Your task to perform on an android device: change your default location settings in chrome Image 0: 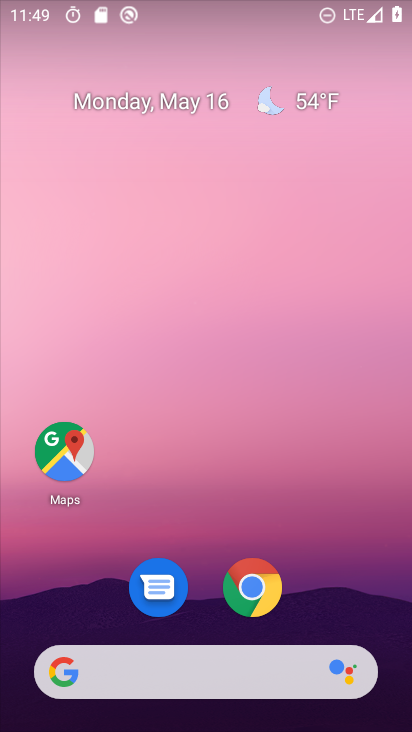
Step 0: drag from (208, 643) to (226, 163)
Your task to perform on an android device: change your default location settings in chrome Image 1: 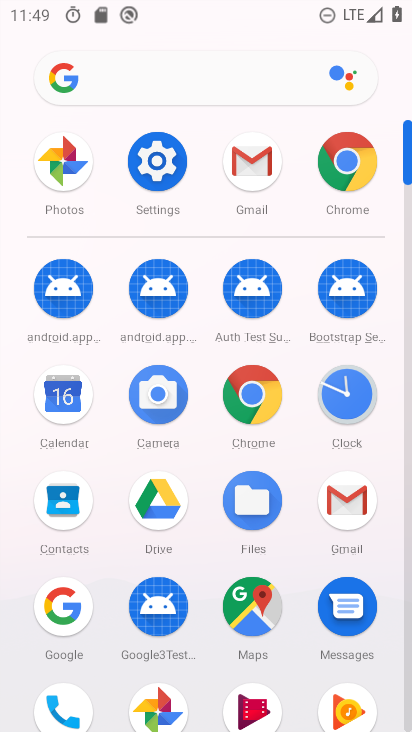
Step 1: drag from (195, 665) to (208, 221)
Your task to perform on an android device: change your default location settings in chrome Image 2: 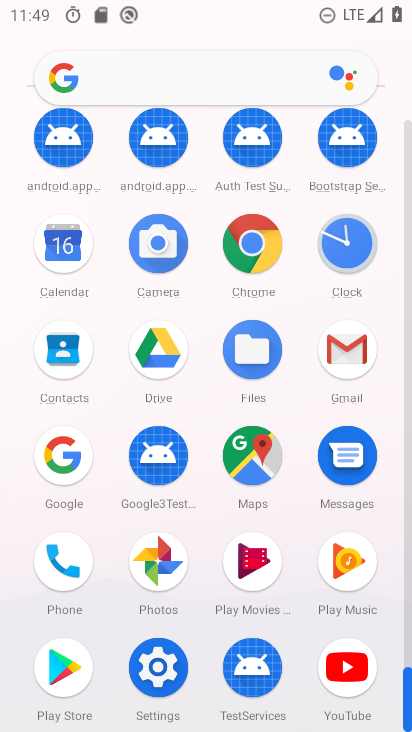
Step 2: drag from (210, 645) to (206, 212)
Your task to perform on an android device: change your default location settings in chrome Image 3: 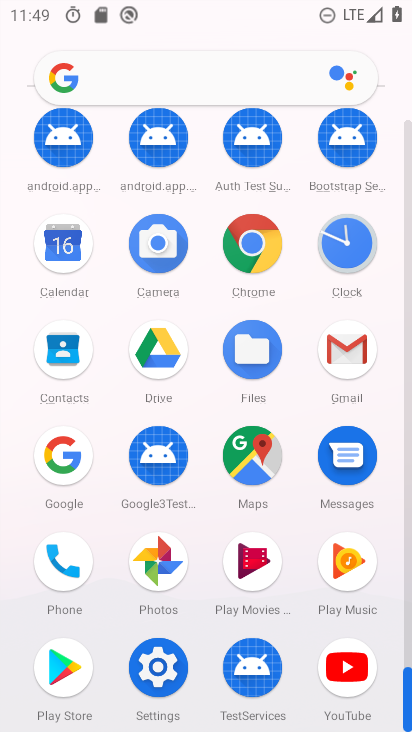
Step 3: click (251, 236)
Your task to perform on an android device: change your default location settings in chrome Image 4: 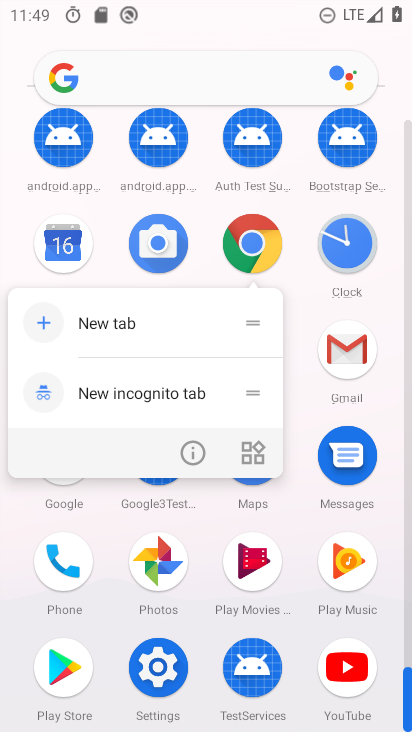
Step 4: click (194, 445)
Your task to perform on an android device: change your default location settings in chrome Image 5: 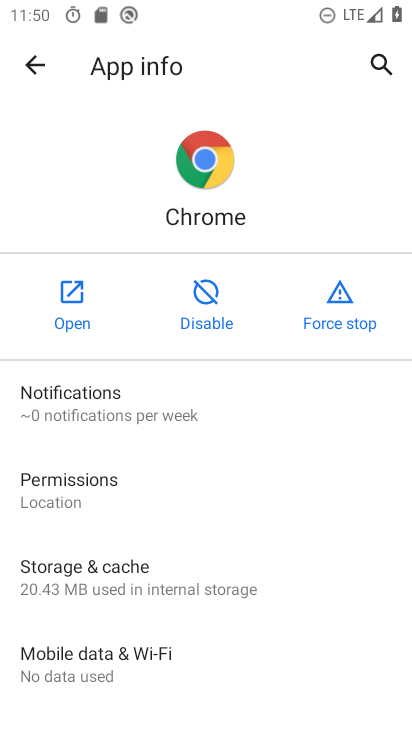
Step 5: click (71, 299)
Your task to perform on an android device: change your default location settings in chrome Image 6: 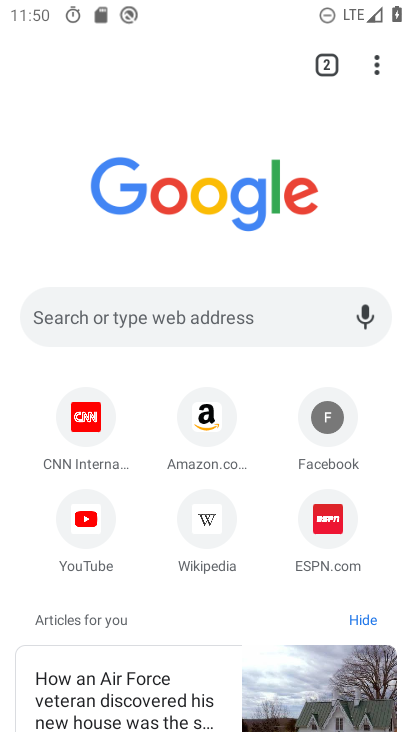
Step 6: click (372, 67)
Your task to perform on an android device: change your default location settings in chrome Image 7: 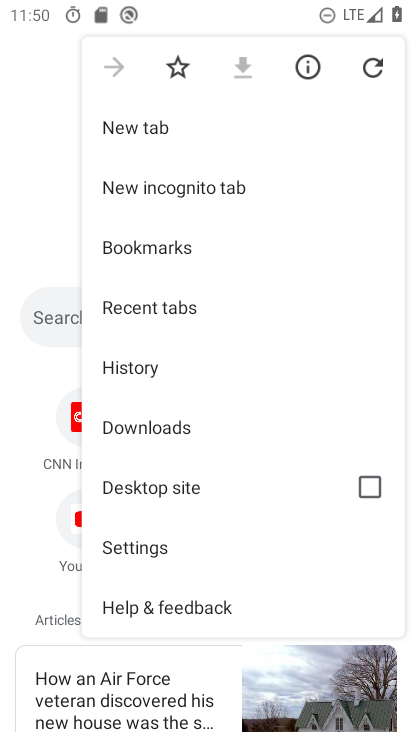
Step 7: click (195, 538)
Your task to perform on an android device: change your default location settings in chrome Image 8: 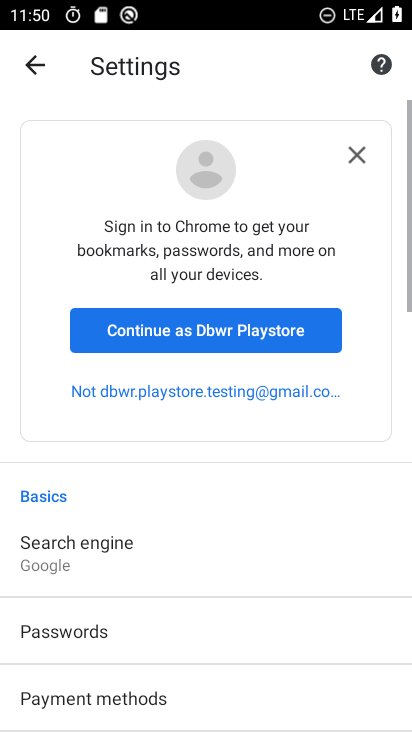
Step 8: drag from (181, 525) to (236, 112)
Your task to perform on an android device: change your default location settings in chrome Image 9: 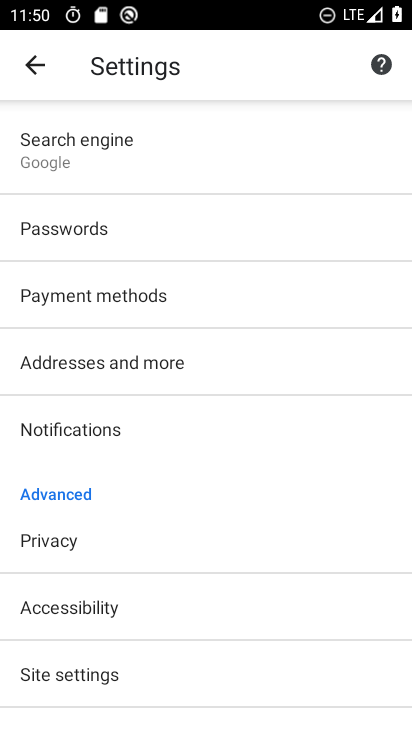
Step 9: drag from (178, 604) to (195, 234)
Your task to perform on an android device: change your default location settings in chrome Image 10: 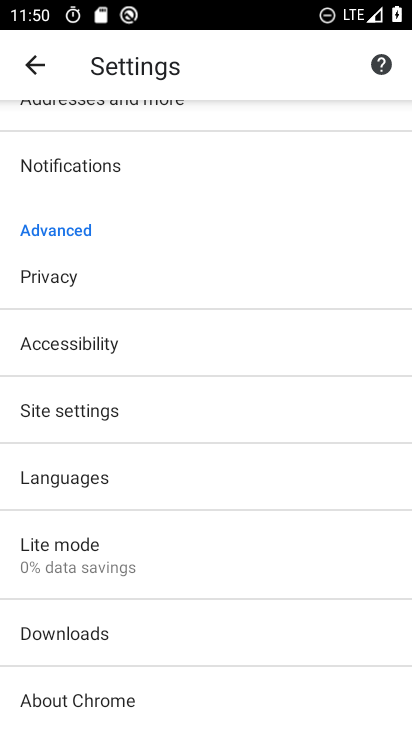
Step 10: click (123, 419)
Your task to perform on an android device: change your default location settings in chrome Image 11: 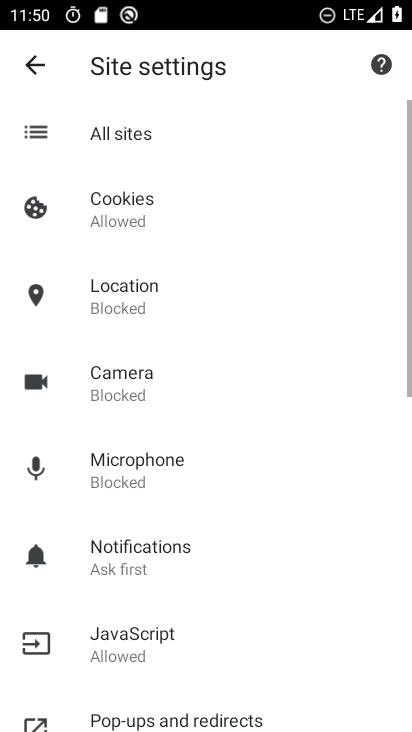
Step 11: click (162, 286)
Your task to perform on an android device: change your default location settings in chrome Image 12: 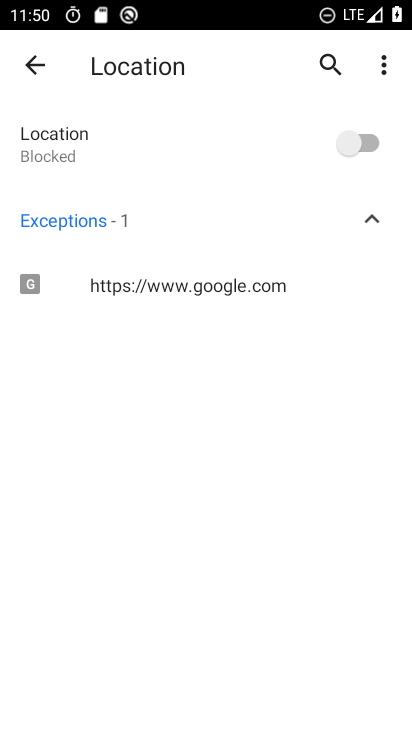
Step 12: click (373, 129)
Your task to perform on an android device: change your default location settings in chrome Image 13: 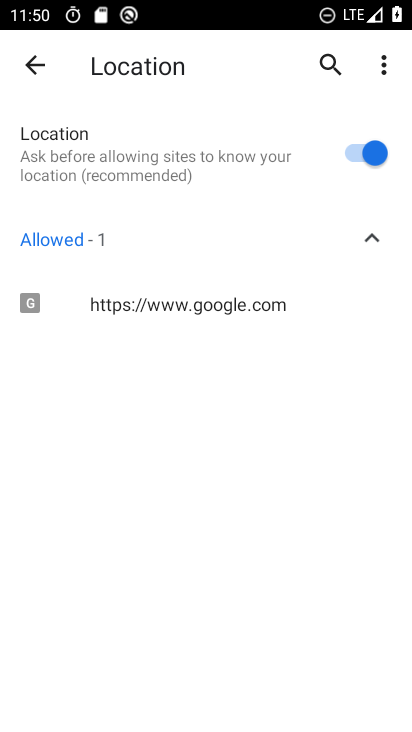
Step 13: task complete